Your task to perform on an android device: Go to location settings Image 0: 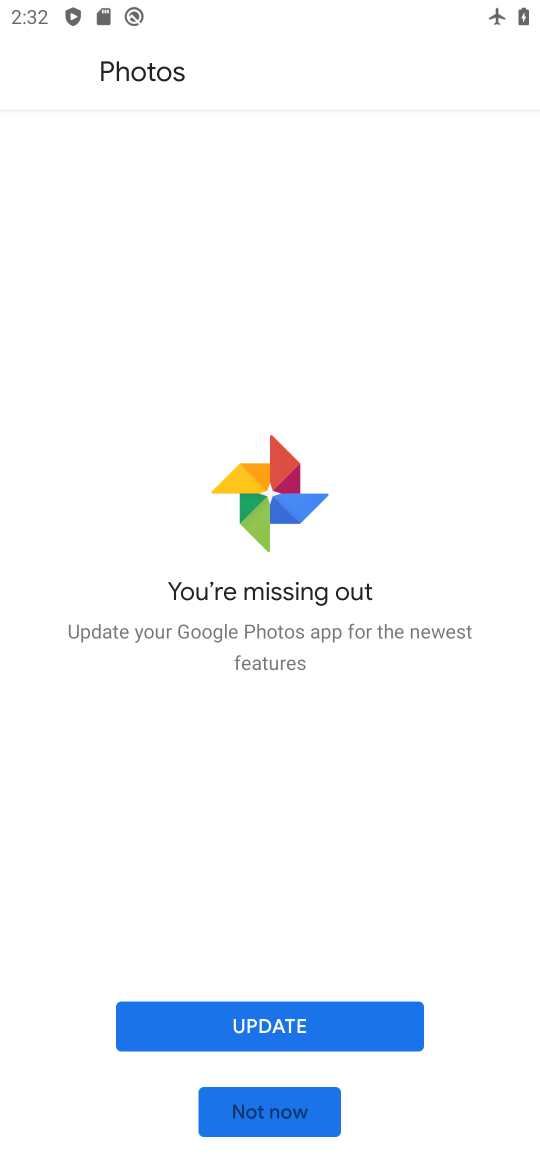
Step 0: press home button
Your task to perform on an android device: Go to location settings Image 1: 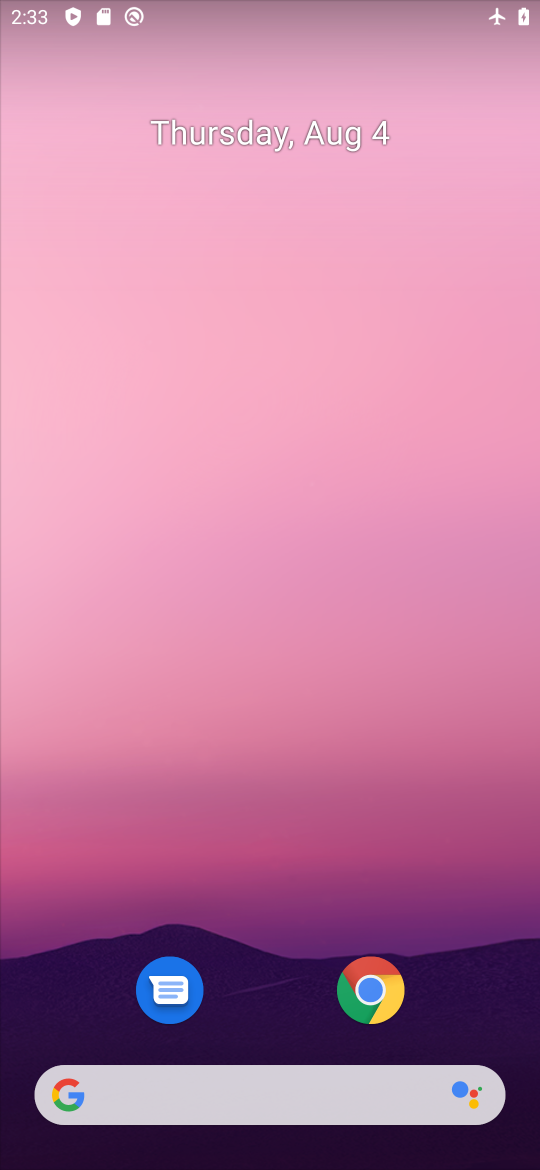
Step 1: drag from (224, 1023) to (229, 219)
Your task to perform on an android device: Go to location settings Image 2: 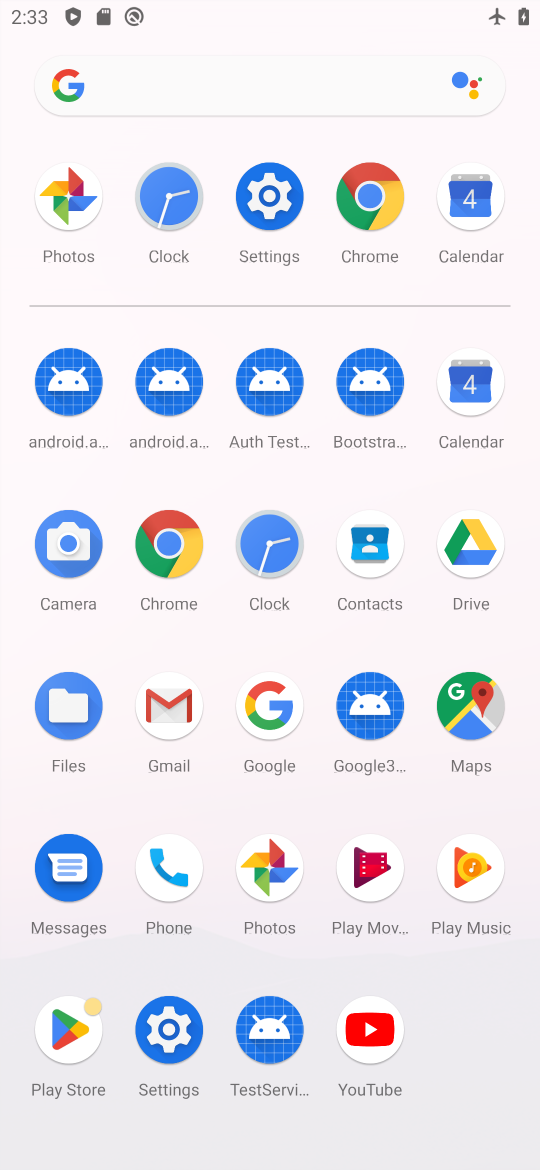
Step 2: click (267, 229)
Your task to perform on an android device: Go to location settings Image 3: 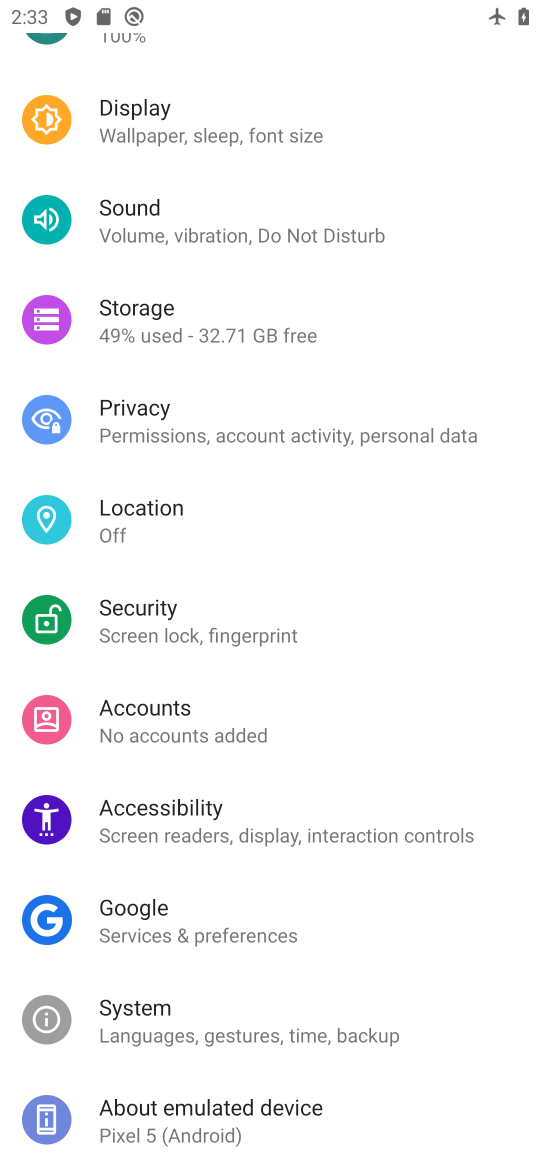
Step 3: click (220, 546)
Your task to perform on an android device: Go to location settings Image 4: 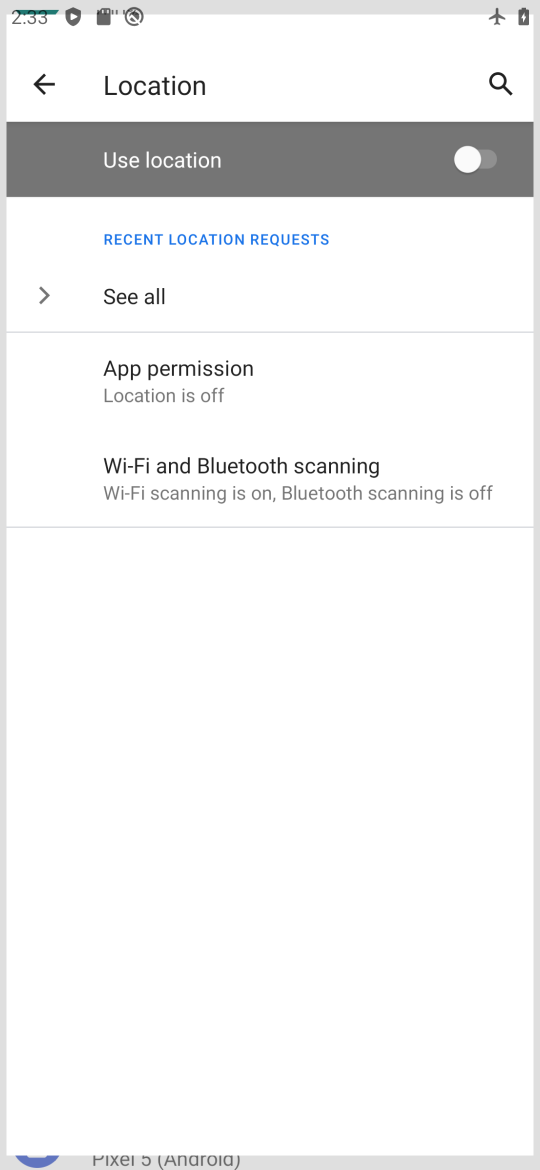
Step 4: task complete